Your task to perform on an android device: turn on improve location accuracy Image 0: 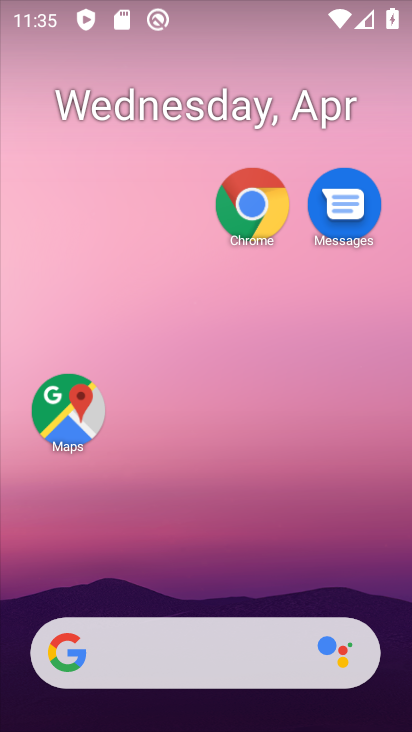
Step 0: drag from (261, 621) to (379, 117)
Your task to perform on an android device: turn on improve location accuracy Image 1: 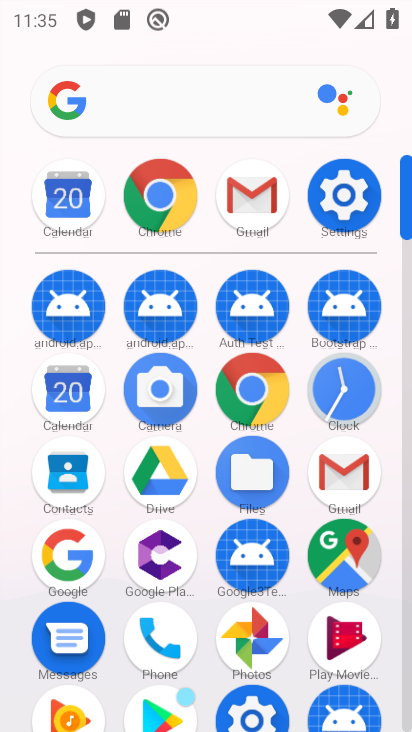
Step 1: click (344, 197)
Your task to perform on an android device: turn on improve location accuracy Image 2: 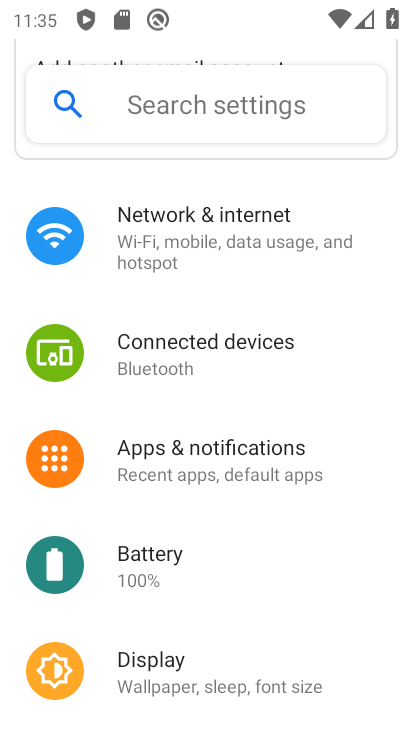
Step 2: drag from (253, 622) to (232, 132)
Your task to perform on an android device: turn on improve location accuracy Image 3: 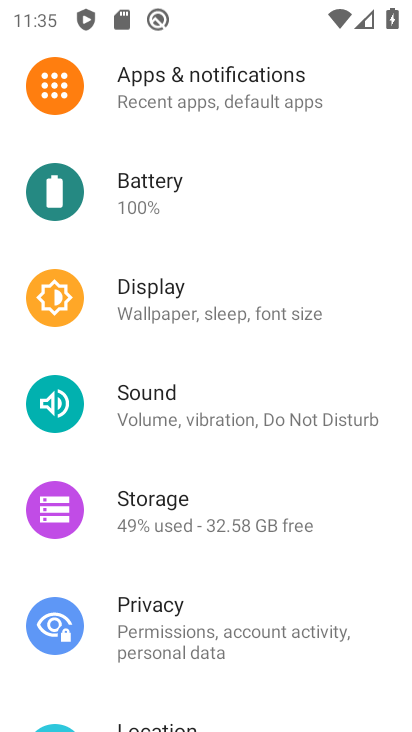
Step 3: drag from (167, 496) to (148, 61)
Your task to perform on an android device: turn on improve location accuracy Image 4: 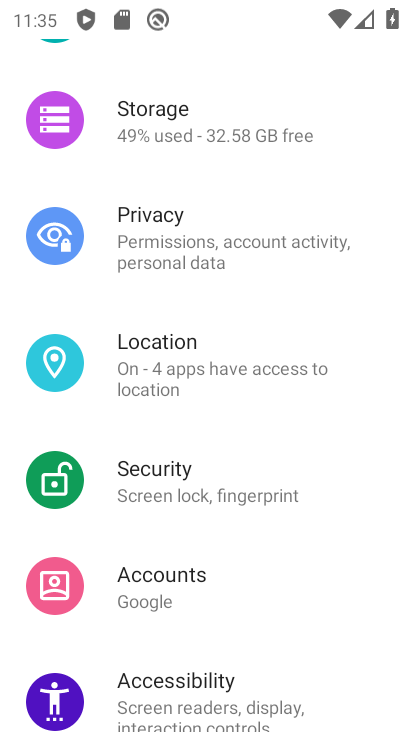
Step 4: click (162, 330)
Your task to perform on an android device: turn on improve location accuracy Image 5: 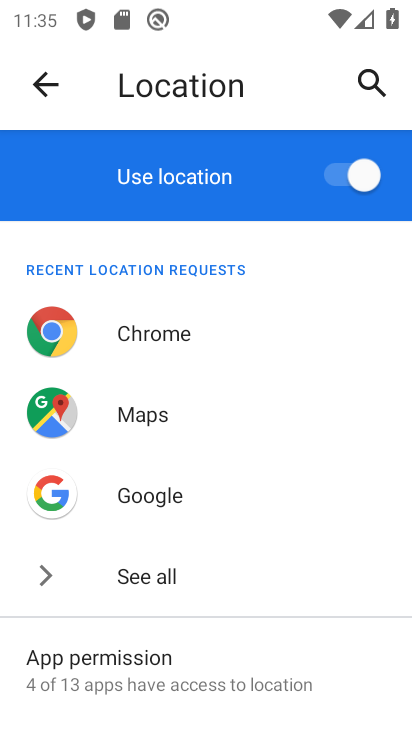
Step 5: drag from (181, 585) to (133, 53)
Your task to perform on an android device: turn on improve location accuracy Image 6: 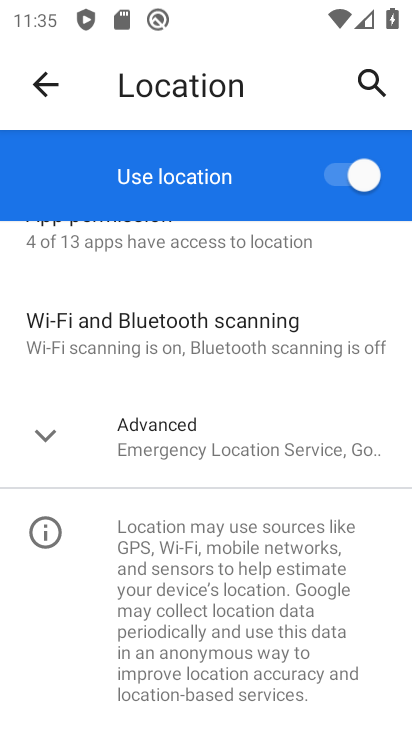
Step 6: click (191, 452)
Your task to perform on an android device: turn on improve location accuracy Image 7: 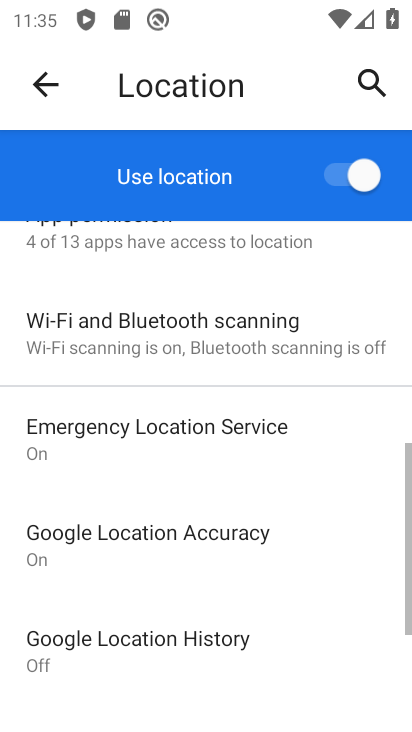
Step 7: drag from (236, 572) to (217, 390)
Your task to perform on an android device: turn on improve location accuracy Image 8: 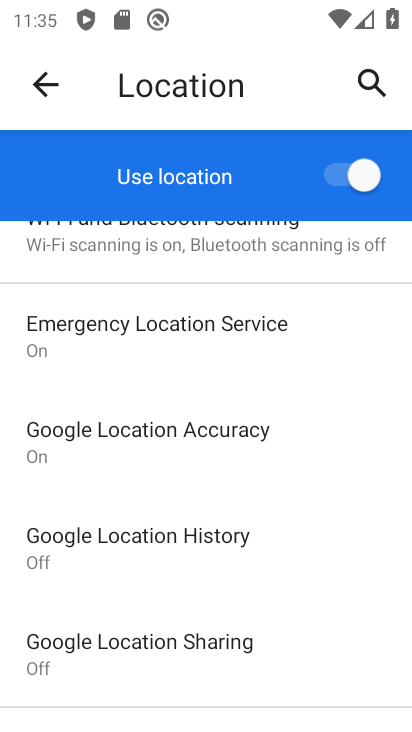
Step 8: click (212, 436)
Your task to perform on an android device: turn on improve location accuracy Image 9: 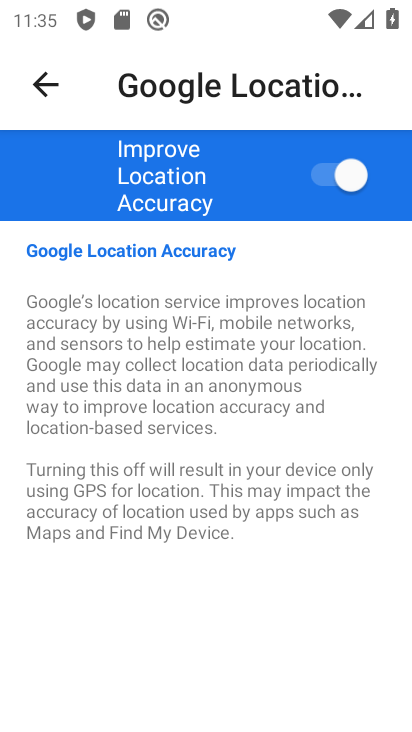
Step 9: task complete